Your task to perform on an android device: Open wifi settings Image 0: 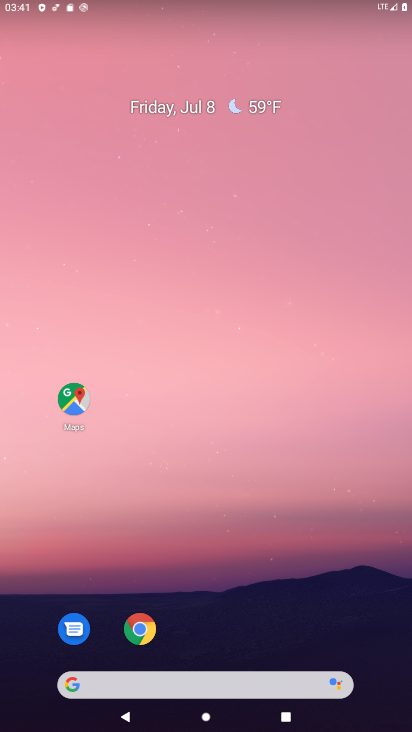
Step 0: press home button
Your task to perform on an android device: Open wifi settings Image 1: 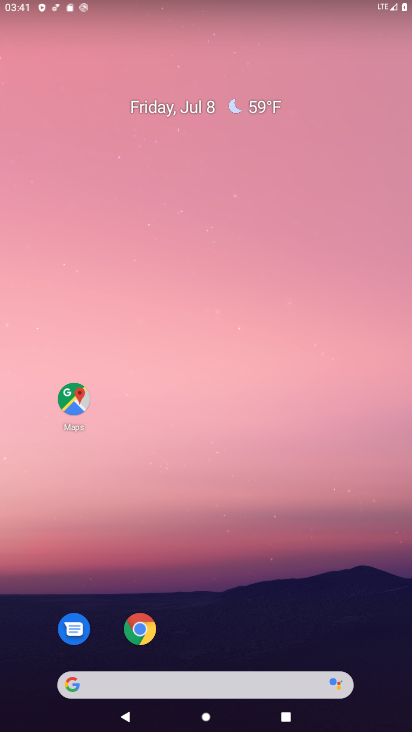
Step 1: click (230, 13)
Your task to perform on an android device: Open wifi settings Image 2: 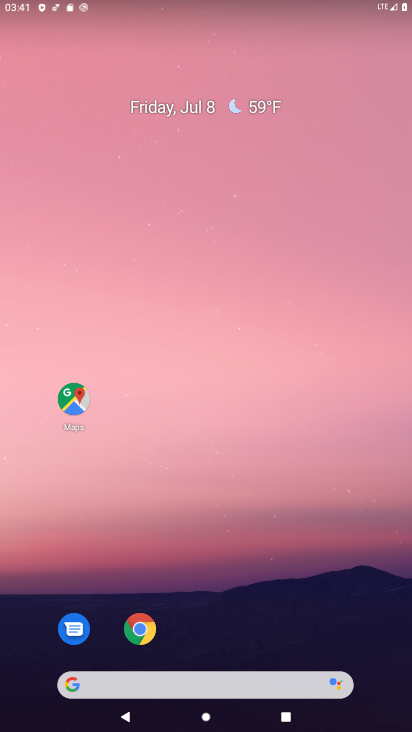
Step 2: drag from (214, 652) to (228, 102)
Your task to perform on an android device: Open wifi settings Image 3: 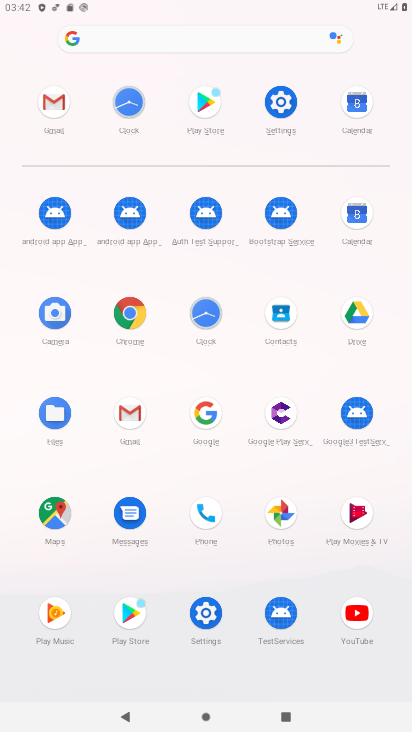
Step 3: click (275, 94)
Your task to perform on an android device: Open wifi settings Image 4: 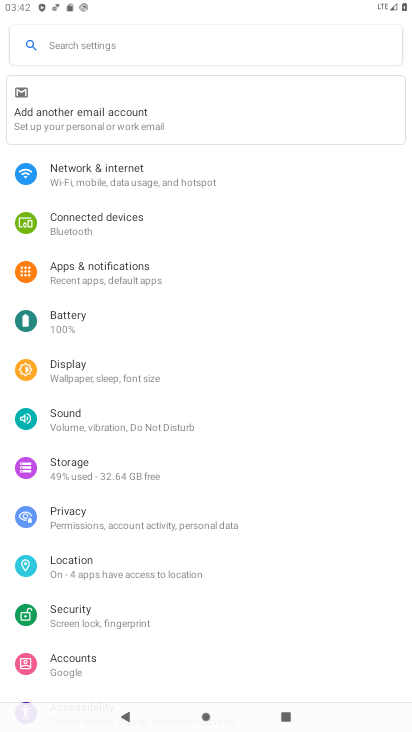
Step 4: click (144, 174)
Your task to perform on an android device: Open wifi settings Image 5: 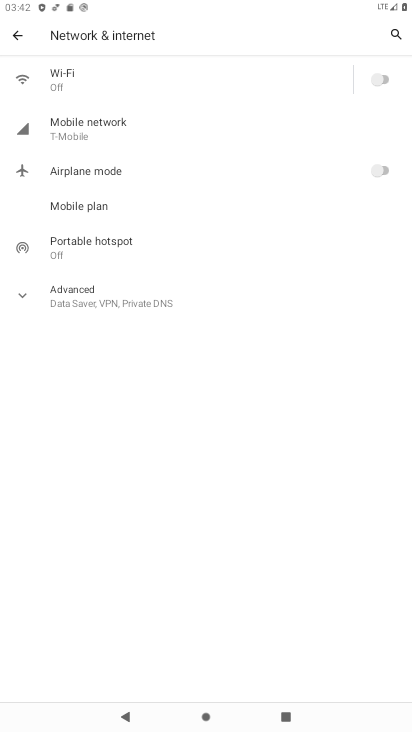
Step 5: click (97, 80)
Your task to perform on an android device: Open wifi settings Image 6: 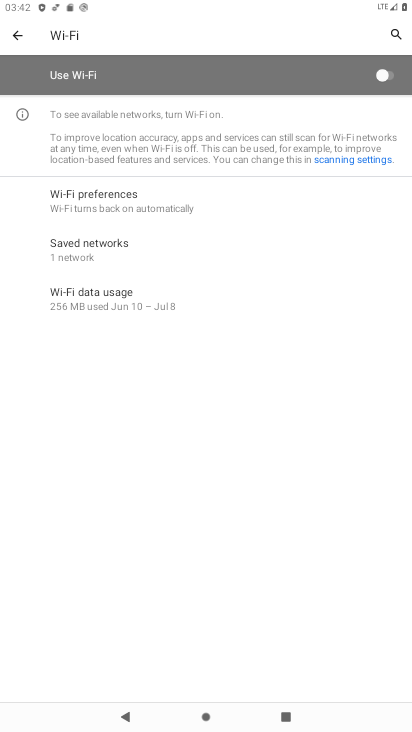
Step 6: click (377, 70)
Your task to perform on an android device: Open wifi settings Image 7: 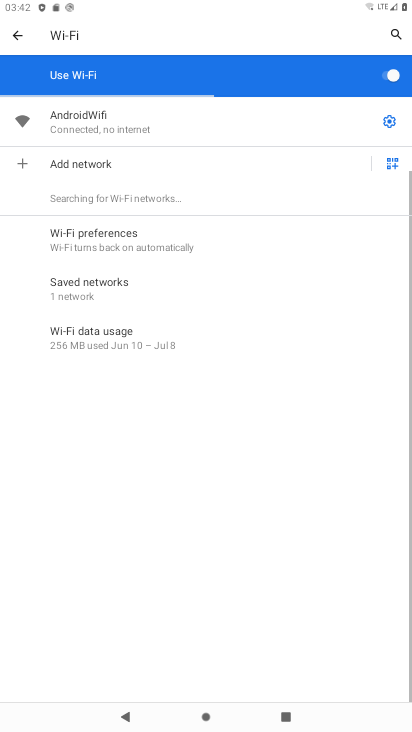
Step 7: task complete